Your task to perform on an android device: Open Google Chrome Image 0: 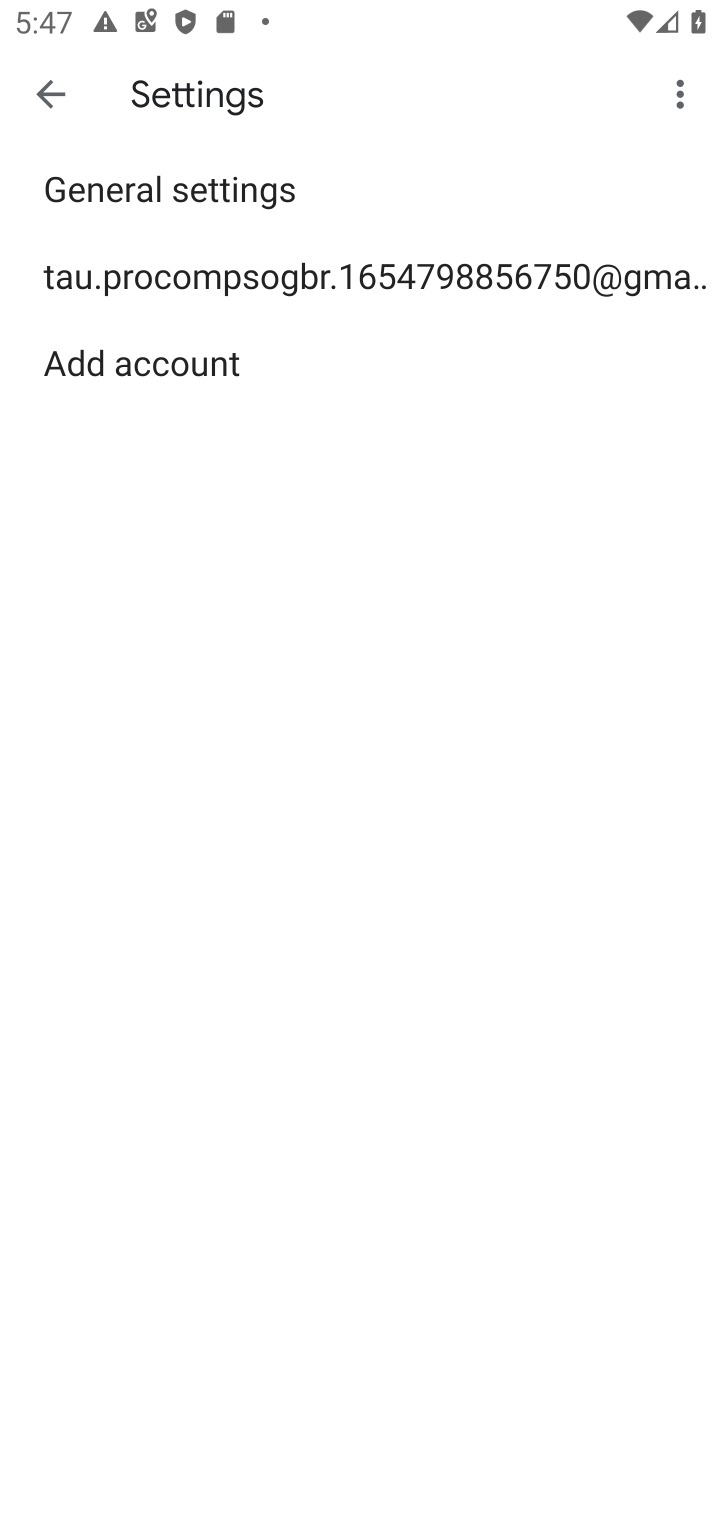
Step 0: press home button
Your task to perform on an android device: Open Google Chrome Image 1: 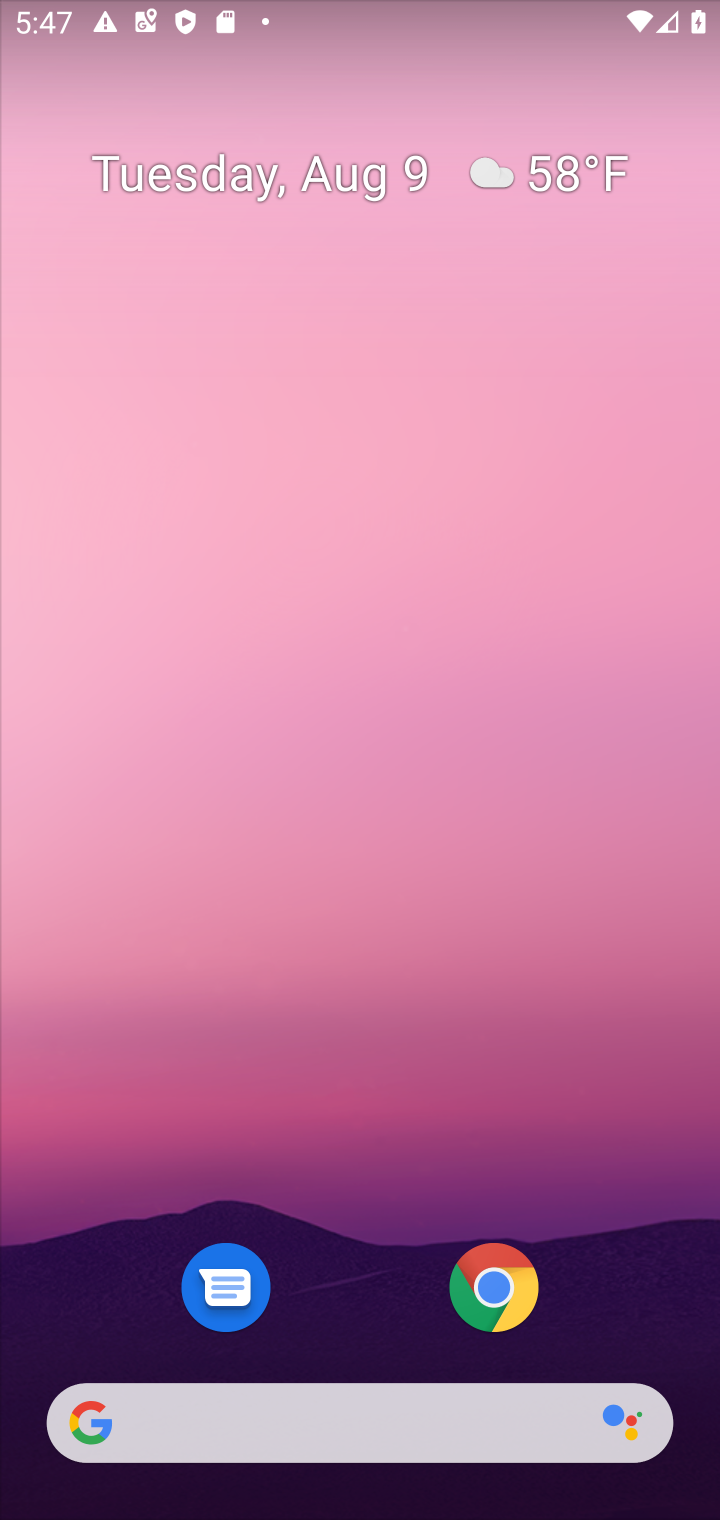
Step 1: drag from (463, 1168) to (463, 494)
Your task to perform on an android device: Open Google Chrome Image 2: 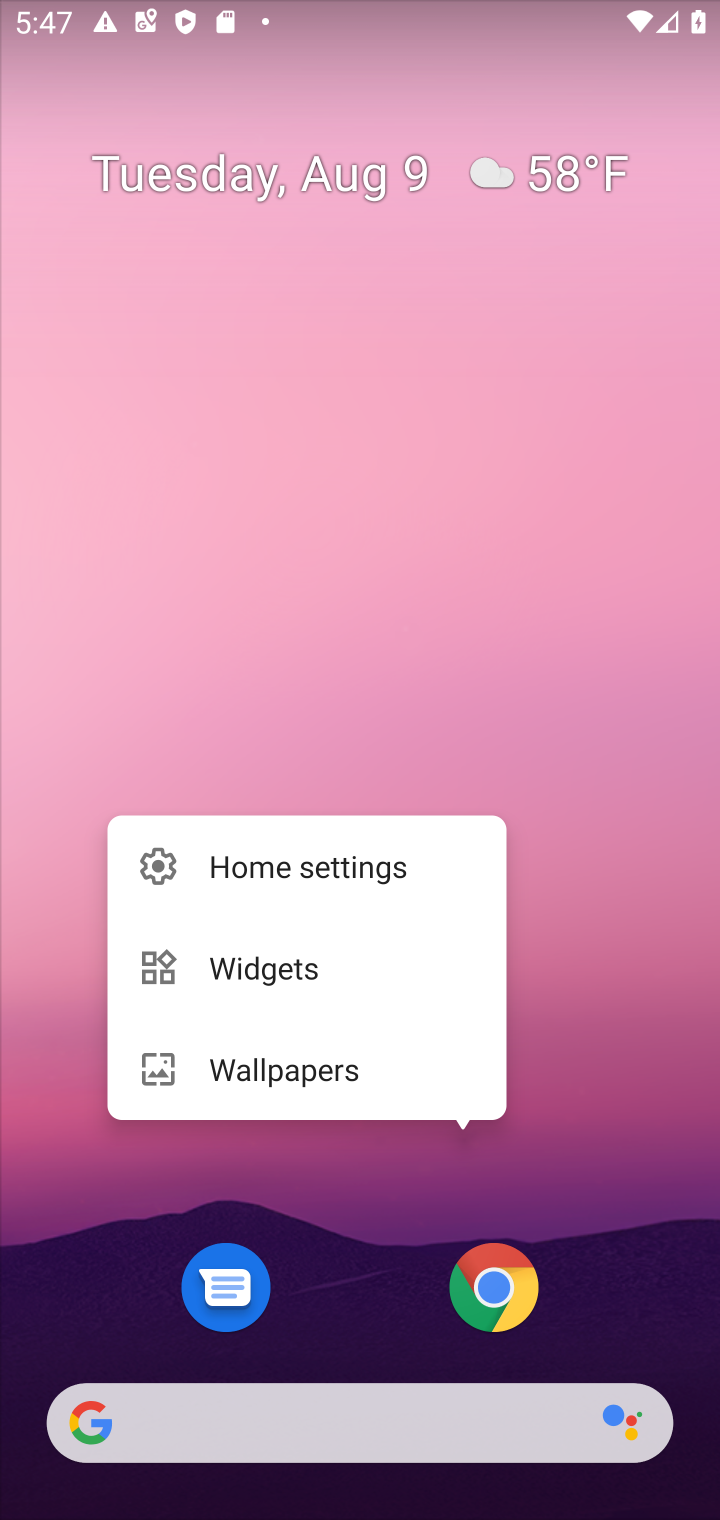
Step 2: click (491, 1301)
Your task to perform on an android device: Open Google Chrome Image 3: 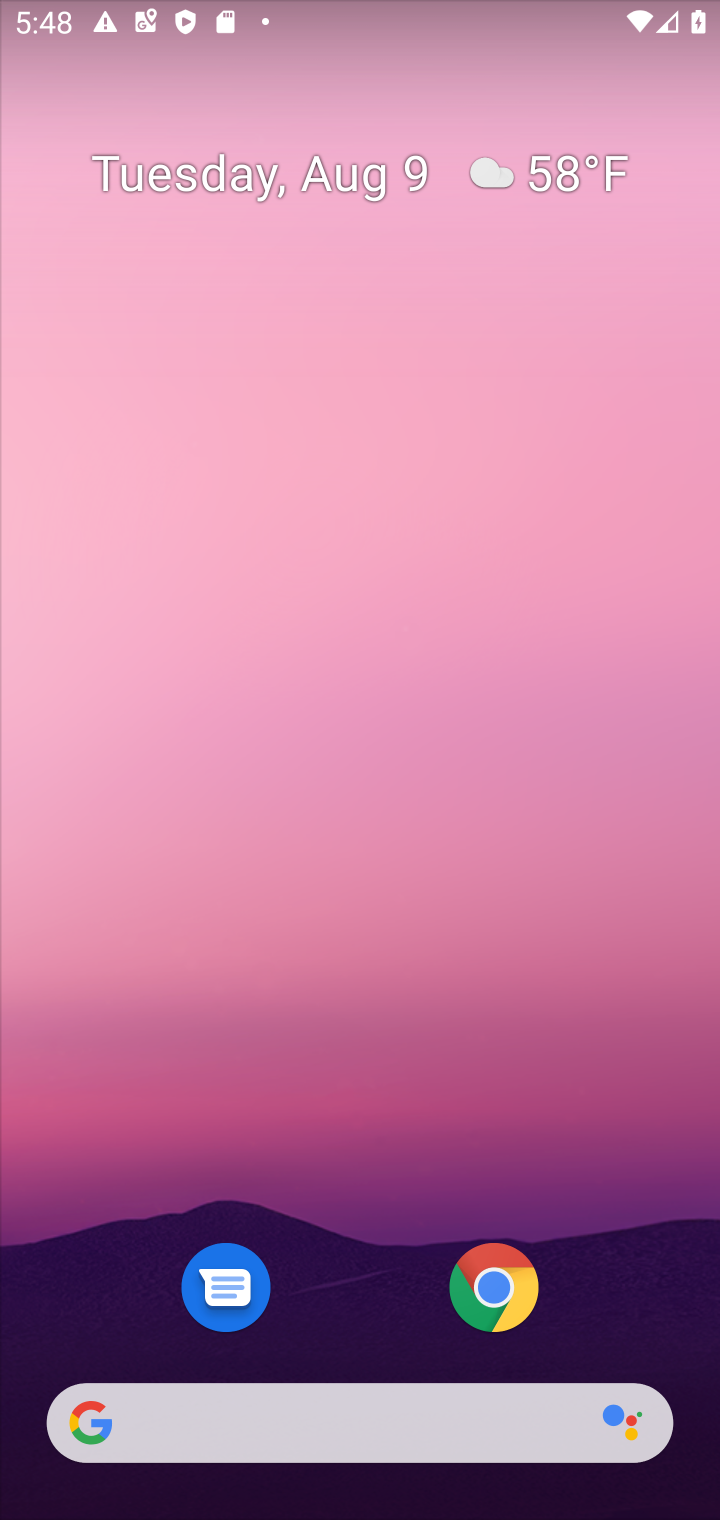
Step 3: click (491, 1301)
Your task to perform on an android device: Open Google Chrome Image 4: 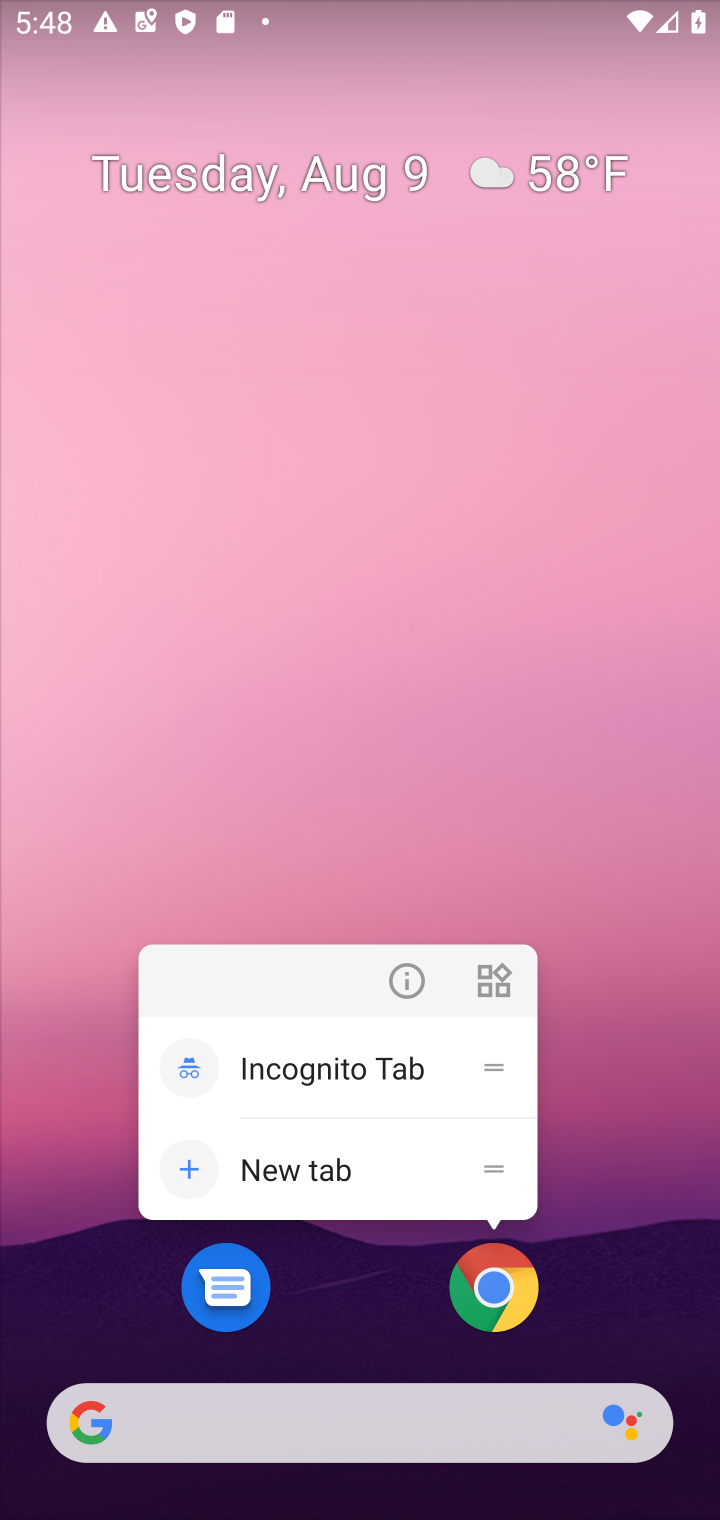
Step 4: click (491, 1301)
Your task to perform on an android device: Open Google Chrome Image 5: 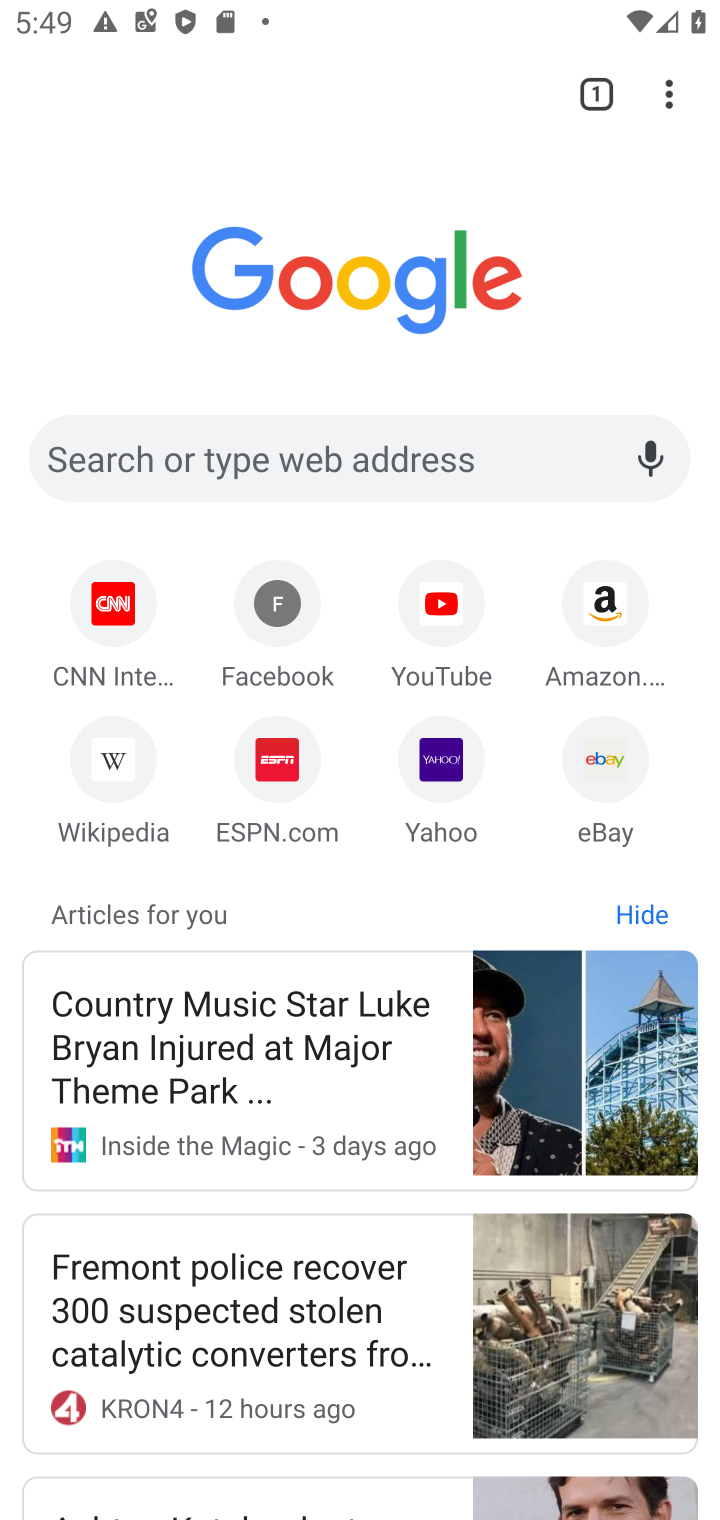
Step 5: task complete